Your task to perform on an android device: open chrome and create a bookmark for the current page Image 0: 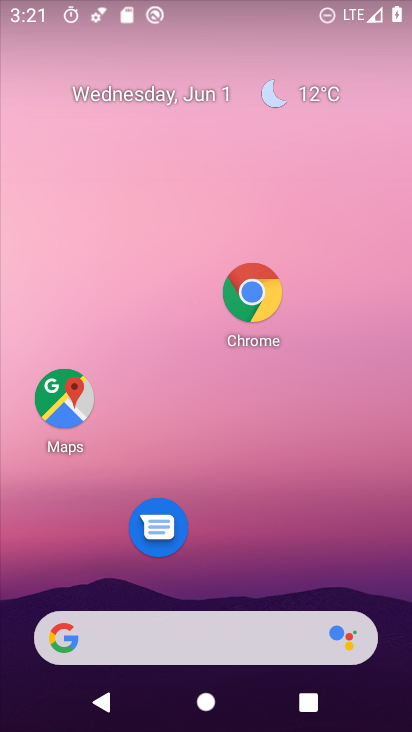
Step 0: drag from (203, 558) to (220, 457)
Your task to perform on an android device: open chrome and create a bookmark for the current page Image 1: 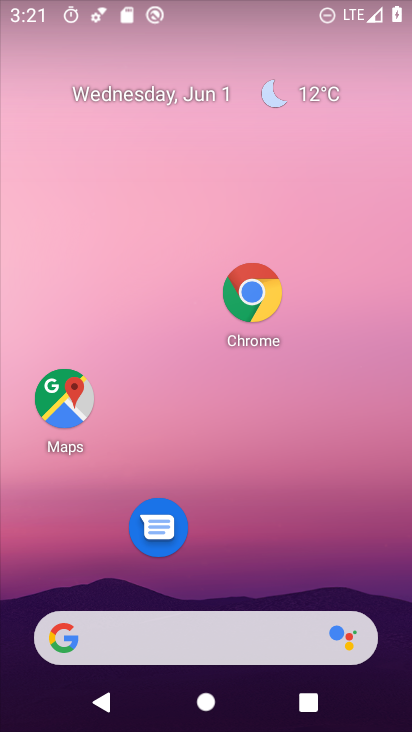
Step 1: click (266, 293)
Your task to perform on an android device: open chrome and create a bookmark for the current page Image 2: 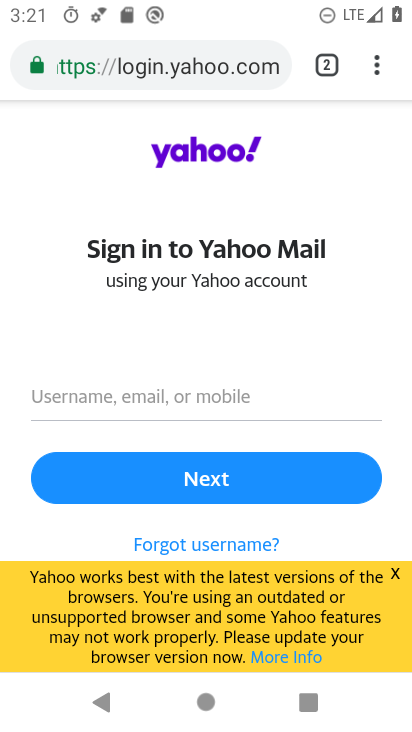
Step 2: click (323, 68)
Your task to perform on an android device: open chrome and create a bookmark for the current page Image 3: 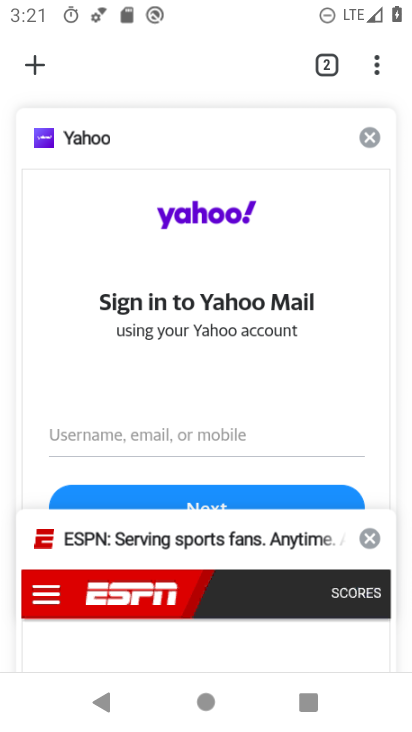
Step 3: click (295, 248)
Your task to perform on an android device: open chrome and create a bookmark for the current page Image 4: 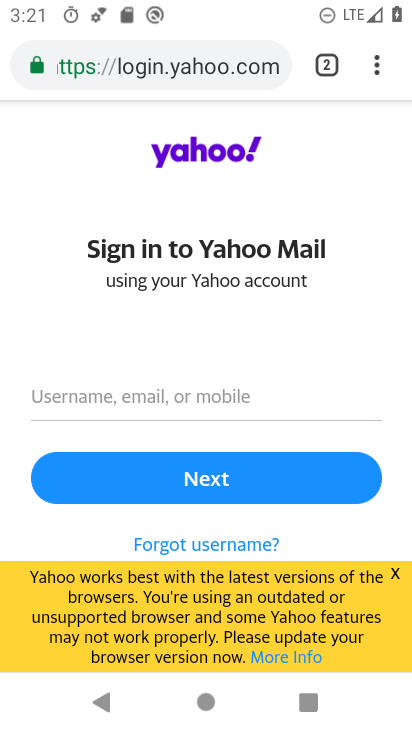
Step 4: click (381, 75)
Your task to perform on an android device: open chrome and create a bookmark for the current page Image 5: 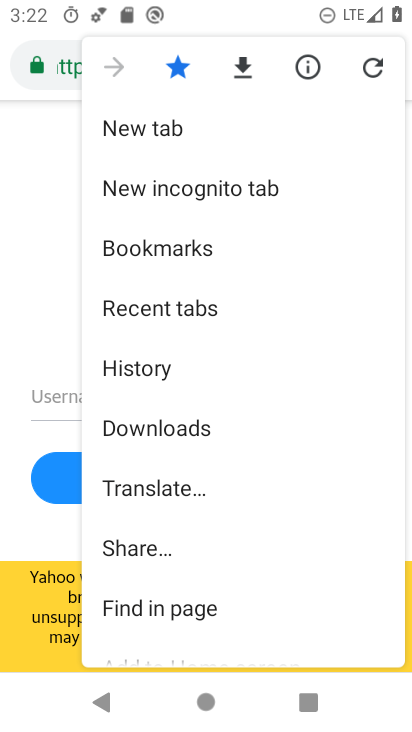
Step 5: task complete